Your task to perform on an android device: Open Youtube and go to the subscriptions tab Image 0: 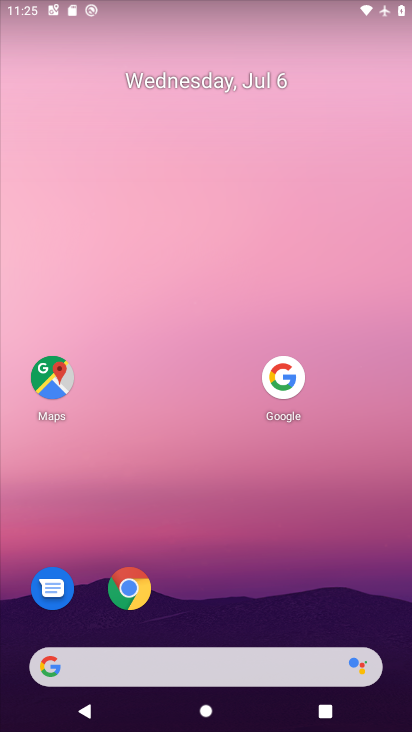
Step 0: press home button
Your task to perform on an android device: Open Youtube and go to the subscriptions tab Image 1: 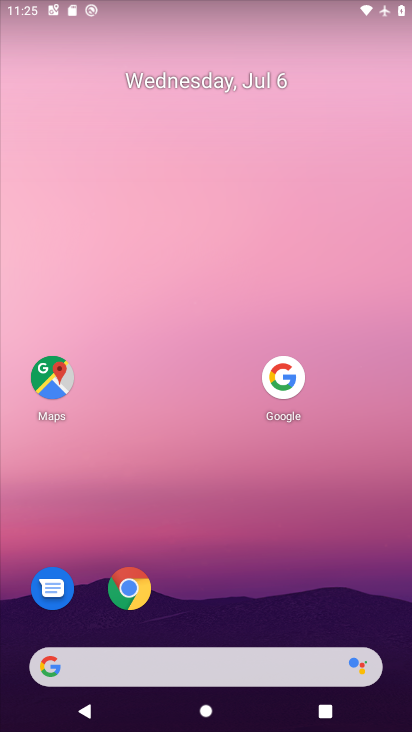
Step 1: drag from (166, 662) to (284, 5)
Your task to perform on an android device: Open Youtube and go to the subscriptions tab Image 2: 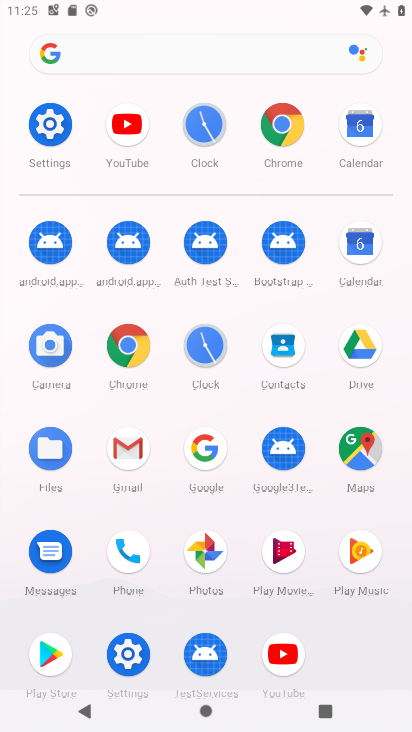
Step 2: click (124, 124)
Your task to perform on an android device: Open Youtube and go to the subscriptions tab Image 3: 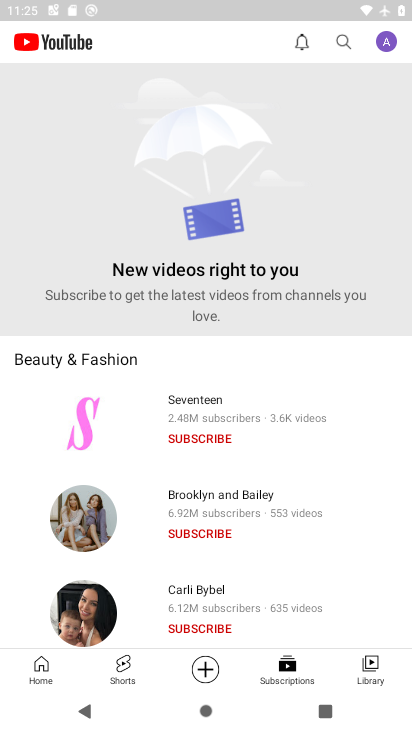
Step 3: task complete